Your task to perform on an android device: turn off javascript in the chrome app Image 0: 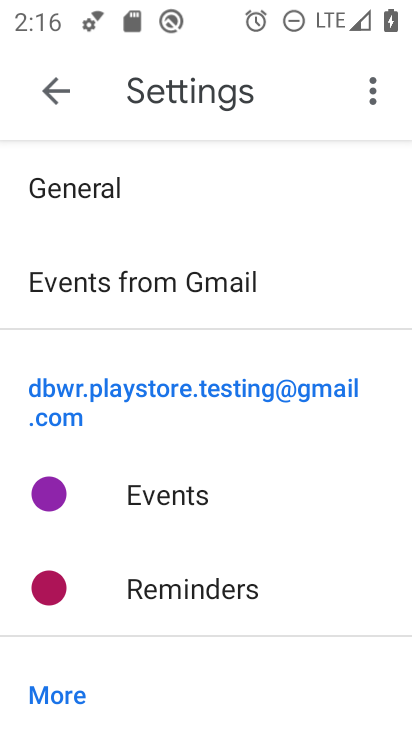
Step 0: press home button
Your task to perform on an android device: turn off javascript in the chrome app Image 1: 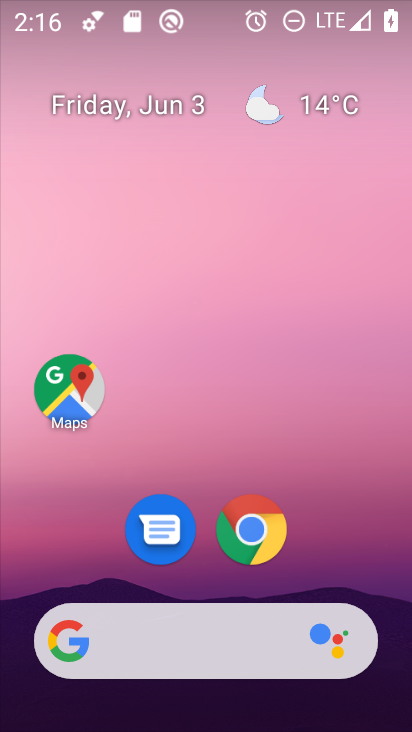
Step 1: drag from (373, 565) to (356, 222)
Your task to perform on an android device: turn off javascript in the chrome app Image 2: 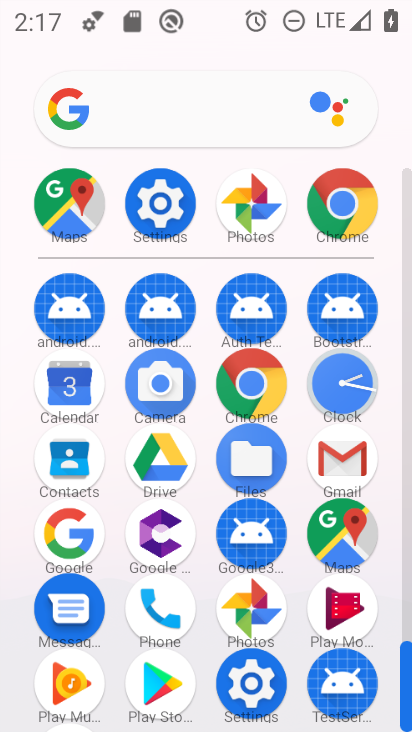
Step 2: click (262, 398)
Your task to perform on an android device: turn off javascript in the chrome app Image 3: 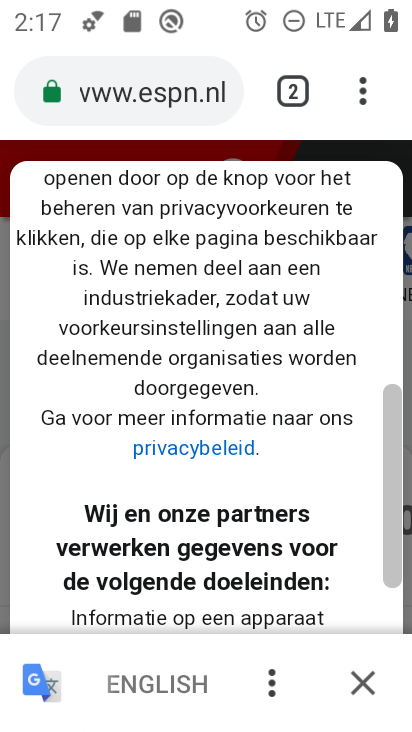
Step 3: click (362, 103)
Your task to perform on an android device: turn off javascript in the chrome app Image 4: 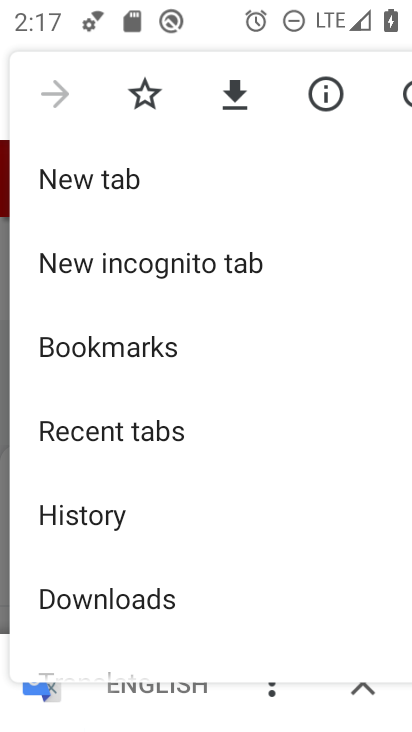
Step 4: drag from (369, 526) to (358, 403)
Your task to perform on an android device: turn off javascript in the chrome app Image 5: 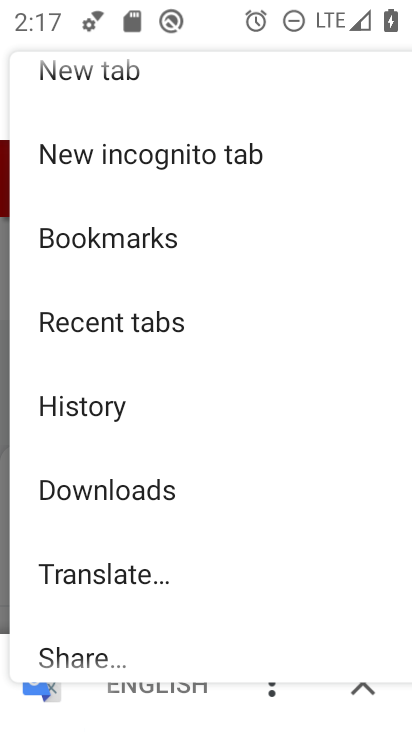
Step 5: drag from (339, 554) to (355, 420)
Your task to perform on an android device: turn off javascript in the chrome app Image 6: 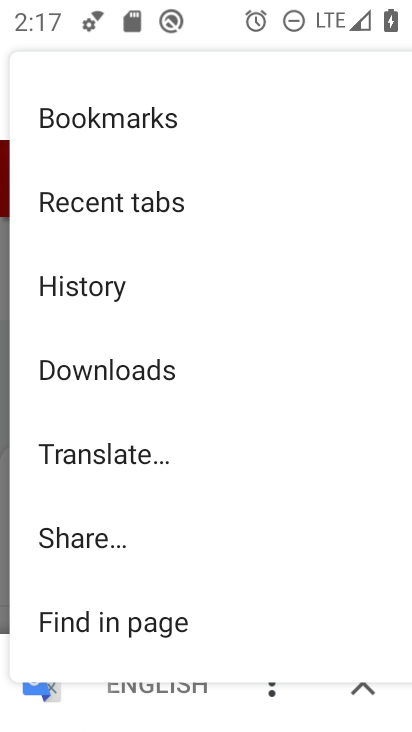
Step 6: drag from (325, 496) to (333, 361)
Your task to perform on an android device: turn off javascript in the chrome app Image 7: 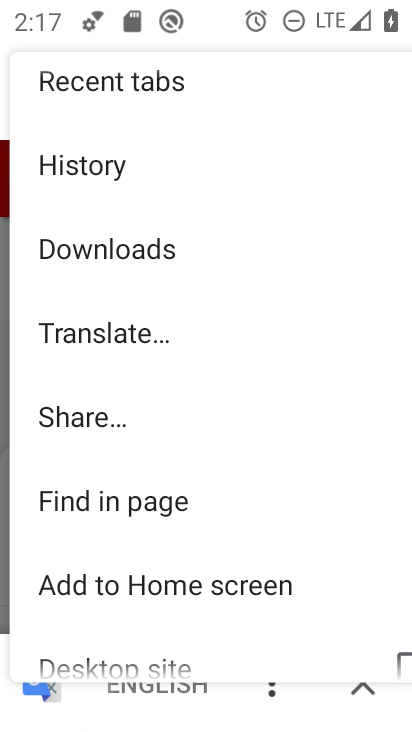
Step 7: drag from (326, 504) to (333, 364)
Your task to perform on an android device: turn off javascript in the chrome app Image 8: 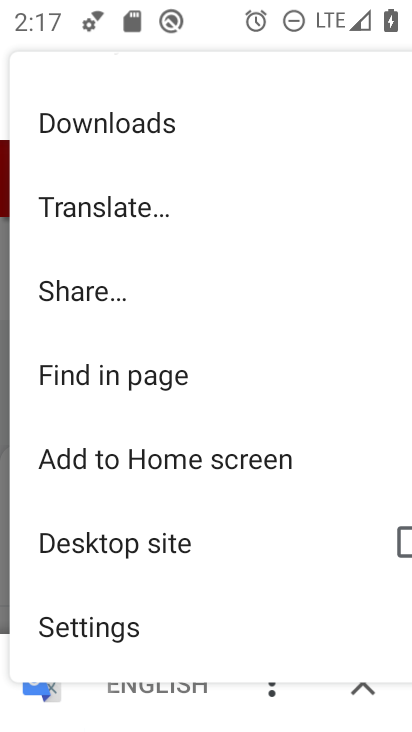
Step 8: drag from (314, 535) to (328, 368)
Your task to perform on an android device: turn off javascript in the chrome app Image 9: 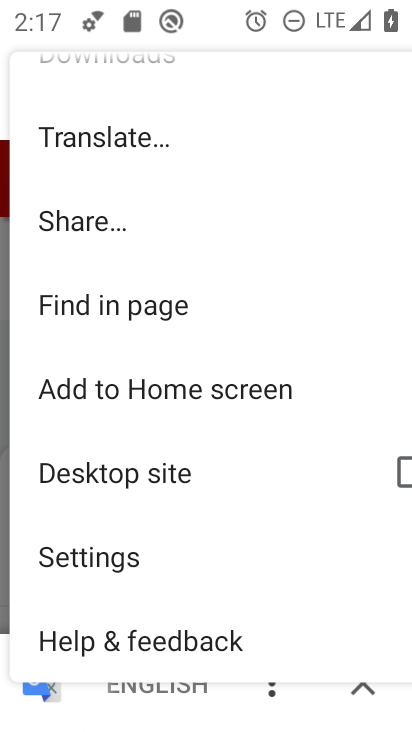
Step 9: click (185, 563)
Your task to perform on an android device: turn off javascript in the chrome app Image 10: 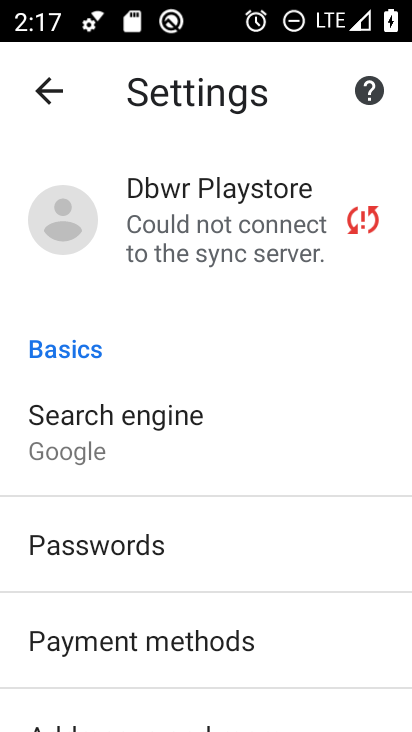
Step 10: drag from (319, 511) to (327, 397)
Your task to perform on an android device: turn off javascript in the chrome app Image 11: 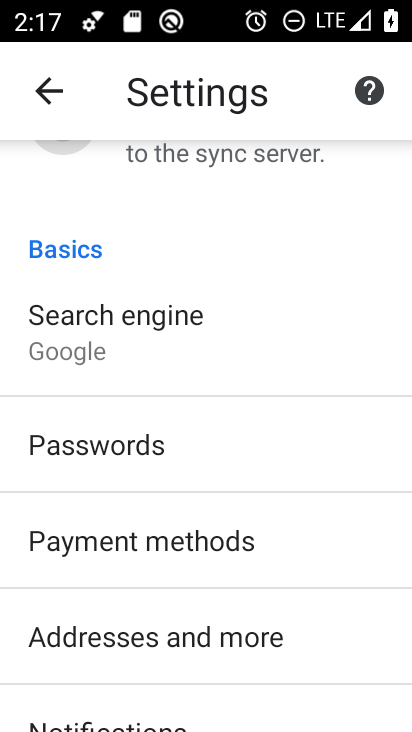
Step 11: drag from (356, 621) to (360, 484)
Your task to perform on an android device: turn off javascript in the chrome app Image 12: 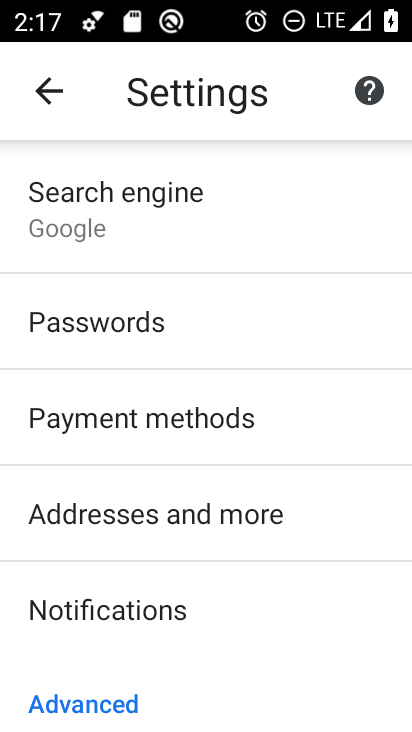
Step 12: drag from (344, 587) to (345, 493)
Your task to perform on an android device: turn off javascript in the chrome app Image 13: 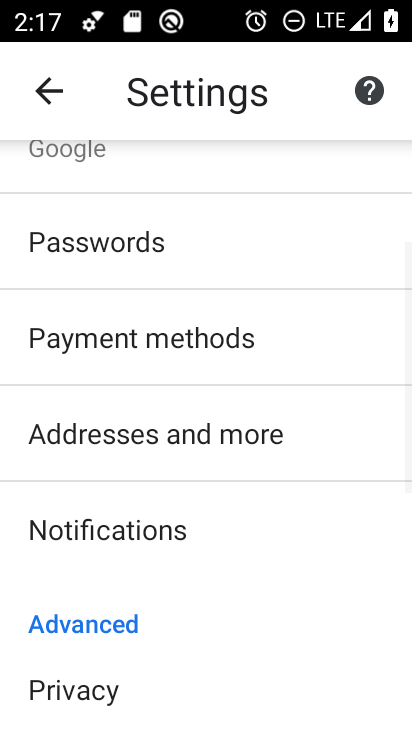
Step 13: drag from (343, 586) to (350, 472)
Your task to perform on an android device: turn off javascript in the chrome app Image 14: 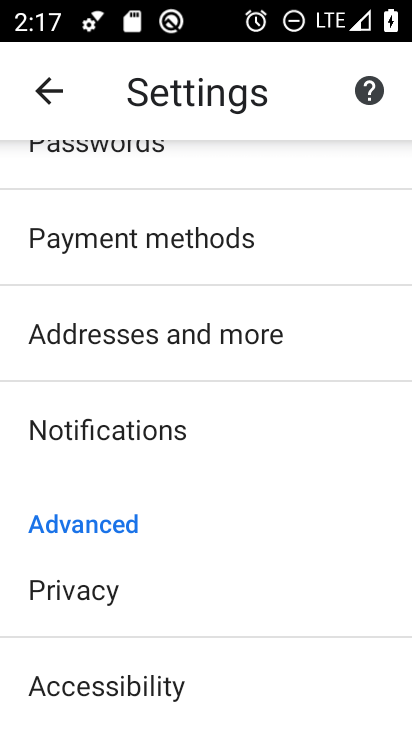
Step 14: drag from (336, 609) to (329, 509)
Your task to perform on an android device: turn off javascript in the chrome app Image 15: 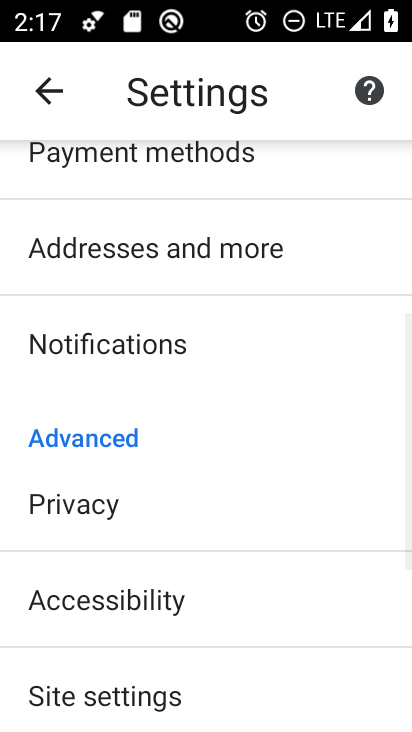
Step 15: drag from (334, 611) to (334, 507)
Your task to perform on an android device: turn off javascript in the chrome app Image 16: 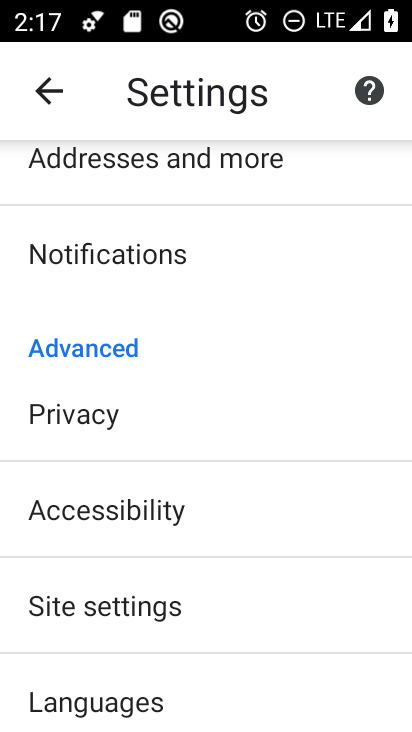
Step 16: drag from (336, 607) to (351, 514)
Your task to perform on an android device: turn off javascript in the chrome app Image 17: 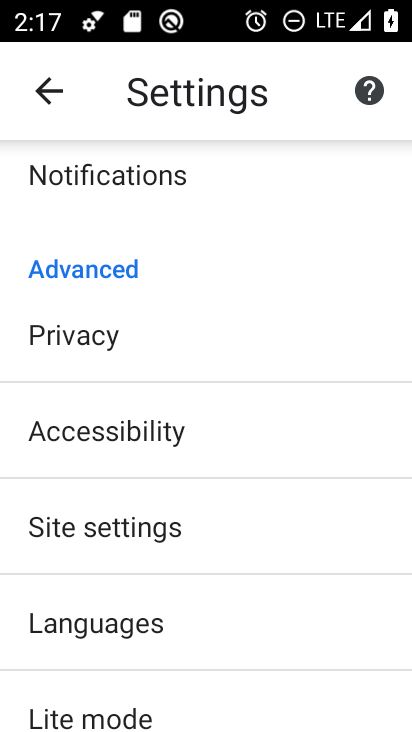
Step 17: drag from (347, 615) to (354, 532)
Your task to perform on an android device: turn off javascript in the chrome app Image 18: 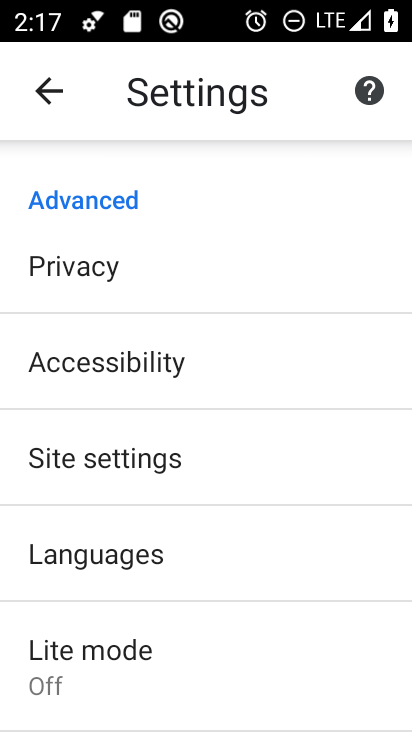
Step 18: click (315, 472)
Your task to perform on an android device: turn off javascript in the chrome app Image 19: 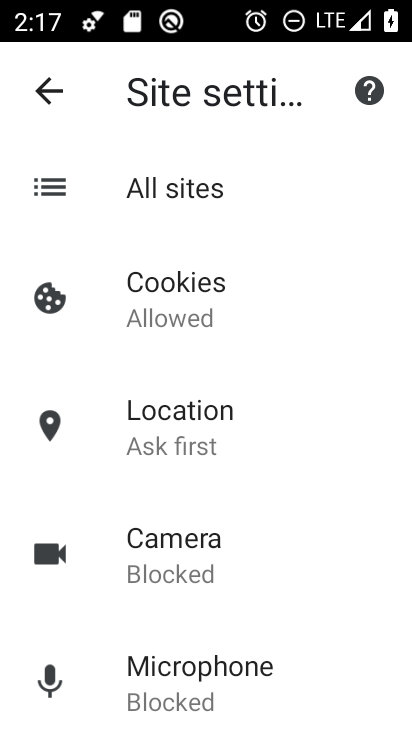
Step 19: drag from (320, 537) to (321, 446)
Your task to perform on an android device: turn off javascript in the chrome app Image 20: 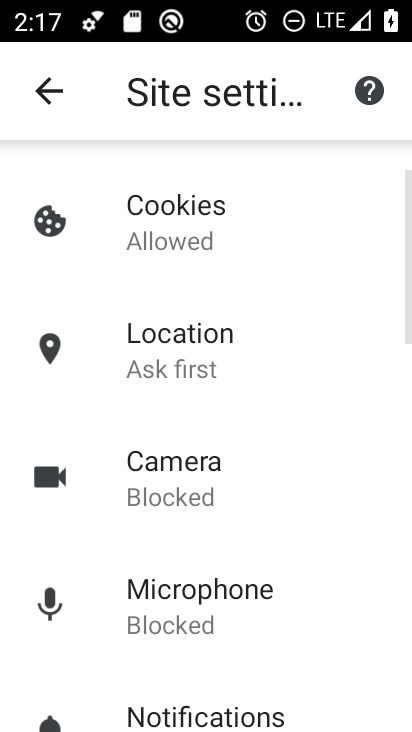
Step 20: drag from (333, 537) to (327, 418)
Your task to perform on an android device: turn off javascript in the chrome app Image 21: 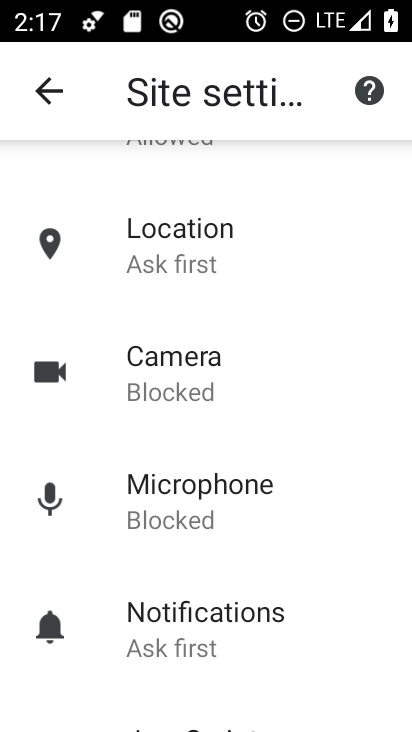
Step 21: drag from (337, 539) to (342, 409)
Your task to perform on an android device: turn off javascript in the chrome app Image 22: 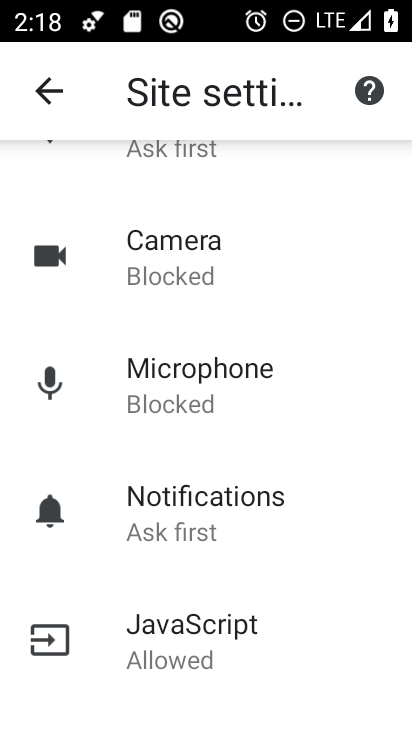
Step 22: drag from (346, 564) to (349, 412)
Your task to perform on an android device: turn off javascript in the chrome app Image 23: 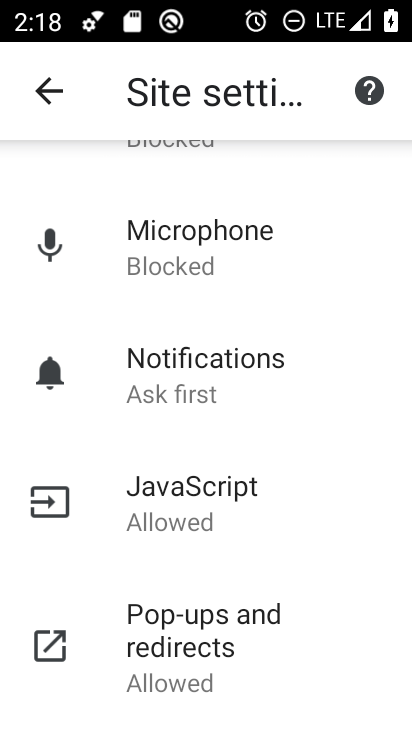
Step 23: click (324, 521)
Your task to perform on an android device: turn off javascript in the chrome app Image 24: 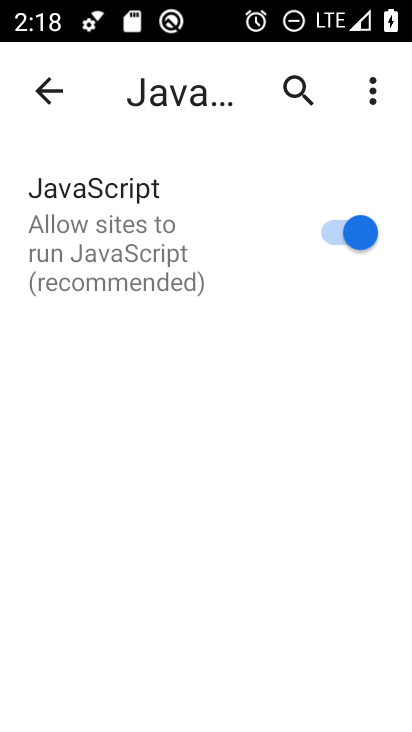
Step 24: click (340, 238)
Your task to perform on an android device: turn off javascript in the chrome app Image 25: 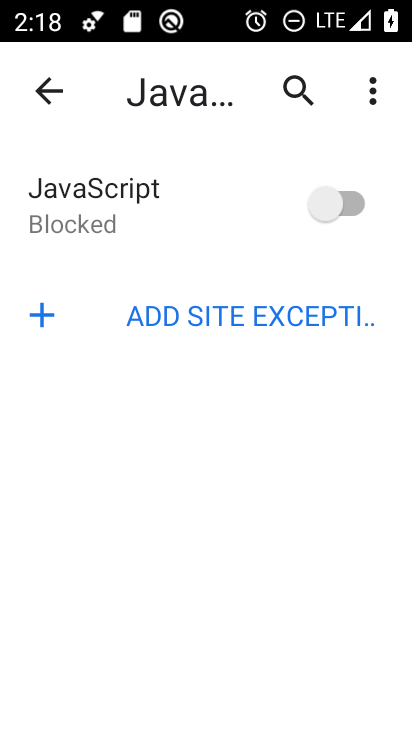
Step 25: task complete